Your task to perform on an android device: open wifi settings Image 0: 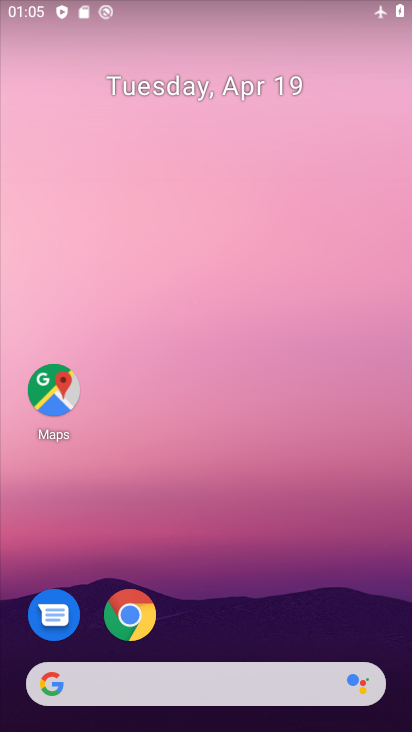
Step 0: task complete